Your task to perform on an android device: Set the phone to "Do not disturb". Image 0: 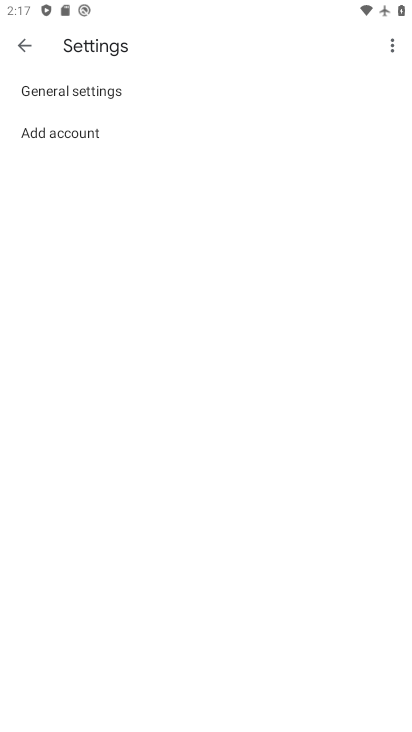
Step 0: press home button
Your task to perform on an android device: Set the phone to "Do not disturb". Image 1: 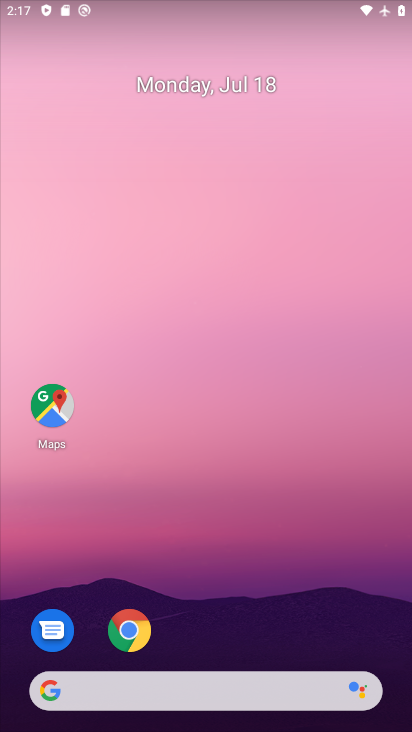
Step 1: press home button
Your task to perform on an android device: Set the phone to "Do not disturb". Image 2: 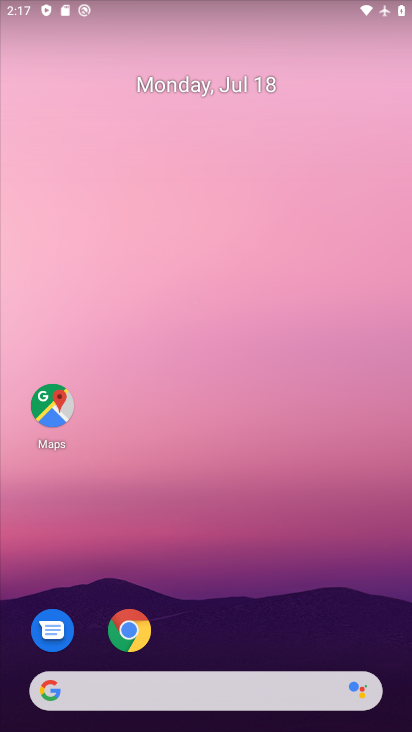
Step 2: drag from (174, 18) to (210, 447)
Your task to perform on an android device: Set the phone to "Do not disturb". Image 3: 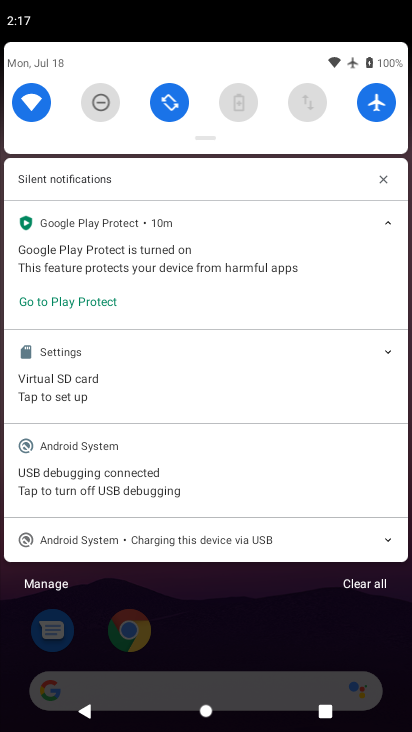
Step 3: click (102, 95)
Your task to perform on an android device: Set the phone to "Do not disturb". Image 4: 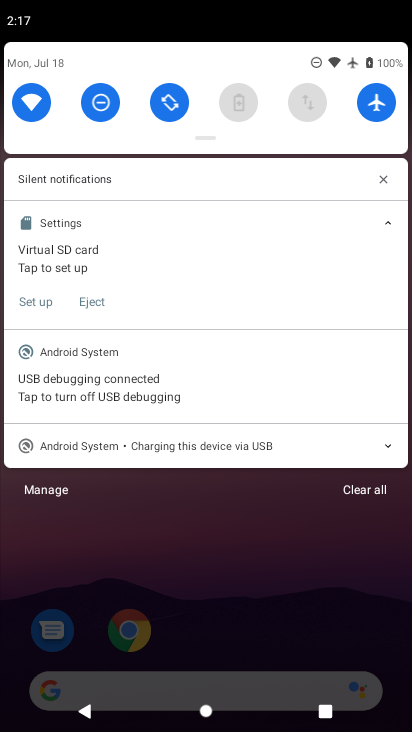
Step 4: task complete